Your task to perform on an android device: Open Chrome and go to the settings page Image 0: 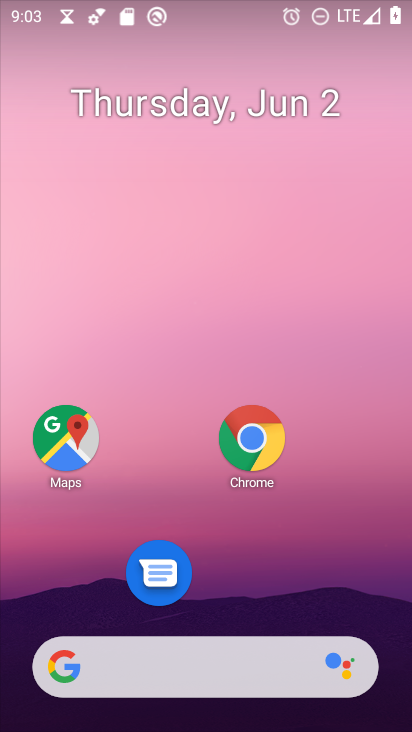
Step 0: click (258, 448)
Your task to perform on an android device: Open Chrome and go to the settings page Image 1: 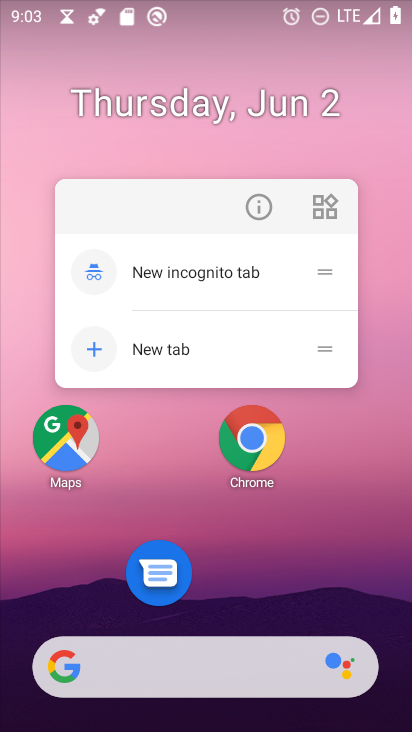
Step 1: click (258, 449)
Your task to perform on an android device: Open Chrome and go to the settings page Image 2: 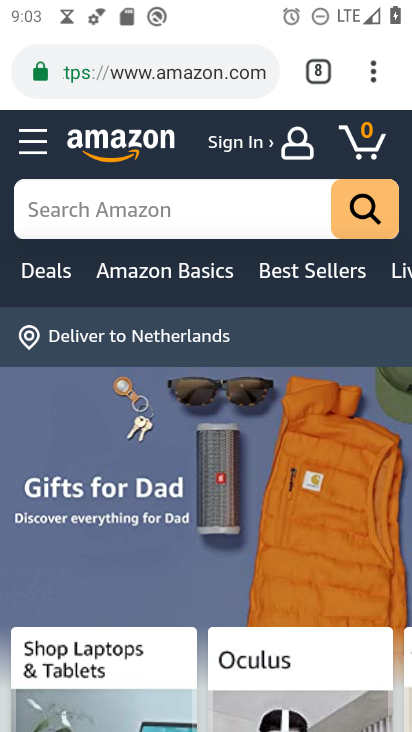
Step 2: task complete